Your task to perform on an android device: Open Google Maps and go to "Timeline" Image 0: 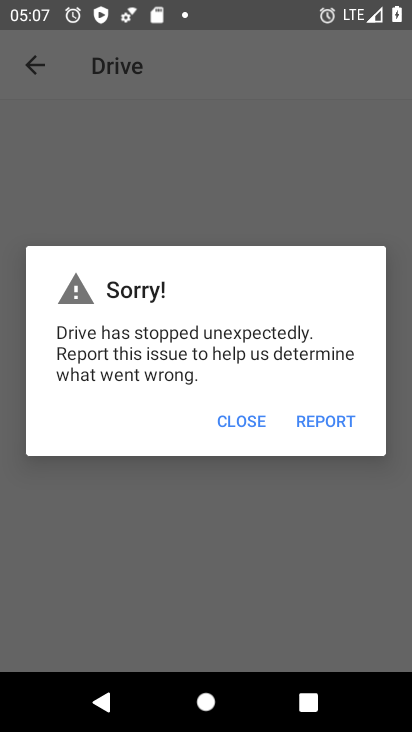
Step 0: press back button
Your task to perform on an android device: Open Google Maps and go to "Timeline" Image 1: 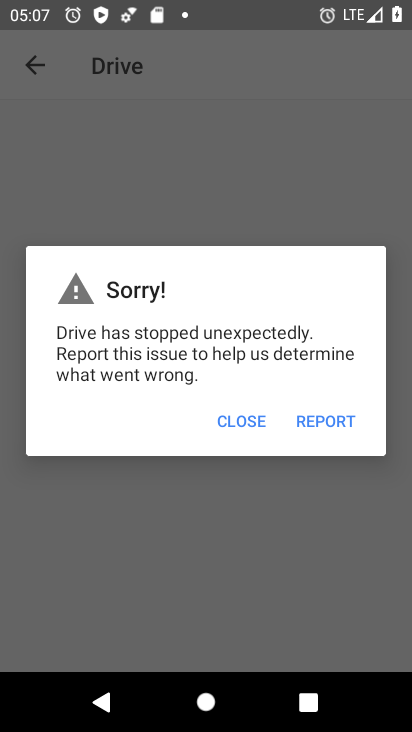
Step 1: press back button
Your task to perform on an android device: Open Google Maps and go to "Timeline" Image 2: 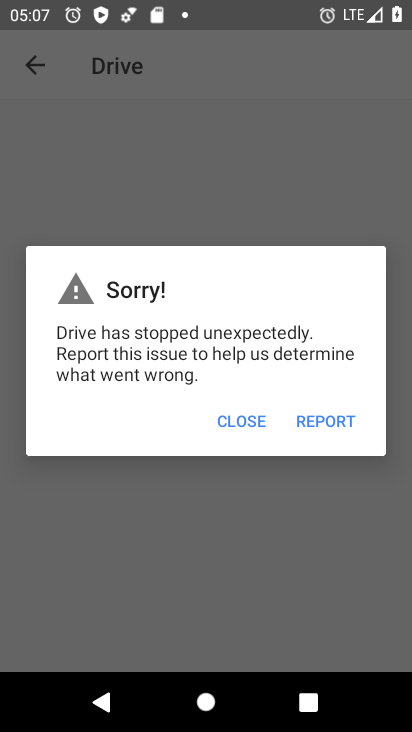
Step 2: press home button
Your task to perform on an android device: Open Google Maps and go to "Timeline" Image 3: 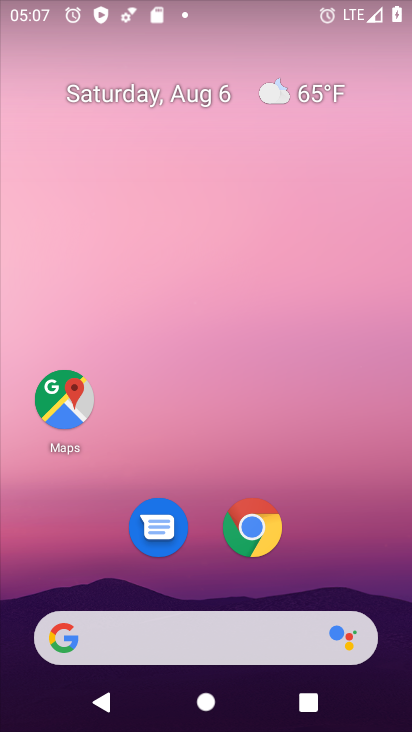
Step 3: click (48, 407)
Your task to perform on an android device: Open Google Maps and go to "Timeline" Image 4: 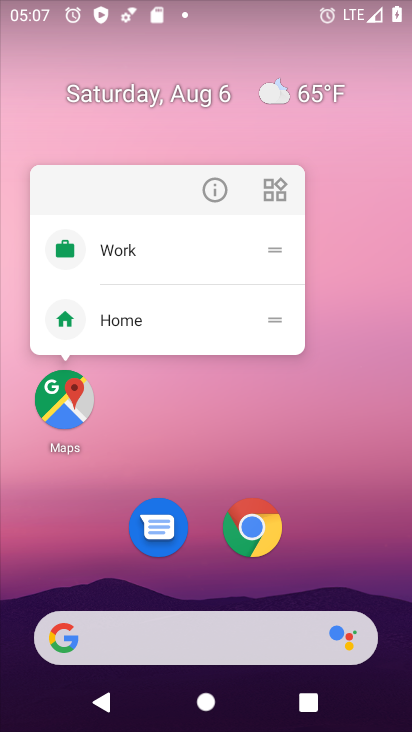
Step 4: click (45, 423)
Your task to perform on an android device: Open Google Maps and go to "Timeline" Image 5: 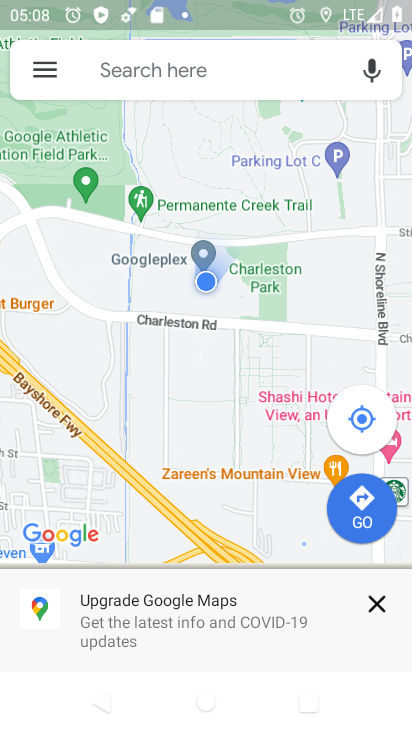
Step 5: click (55, 72)
Your task to perform on an android device: Open Google Maps and go to "Timeline" Image 6: 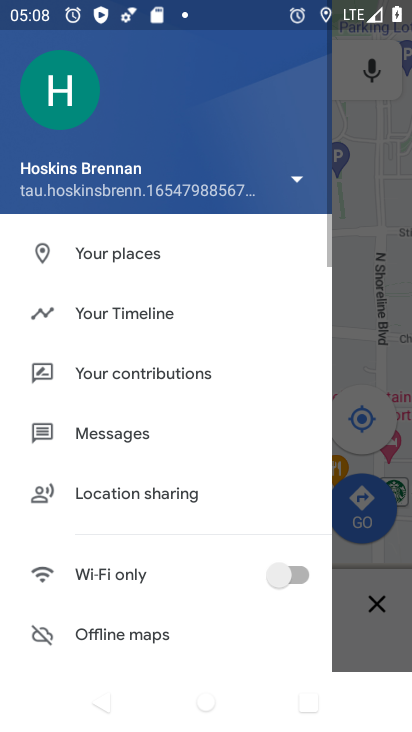
Step 6: click (124, 318)
Your task to perform on an android device: Open Google Maps and go to "Timeline" Image 7: 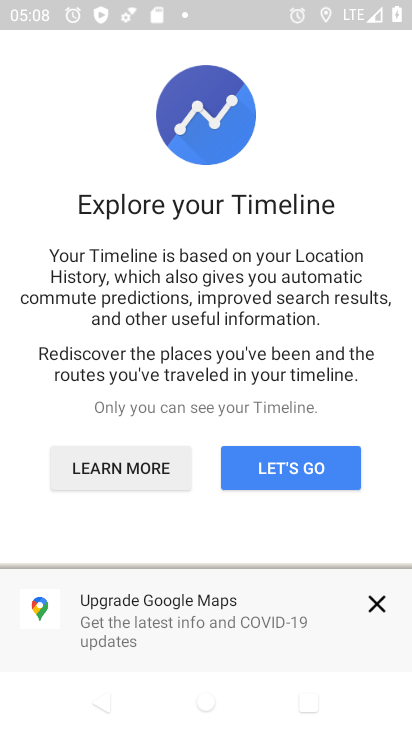
Step 7: task complete